Your task to perform on an android device: Find coffee shops on Maps Image 0: 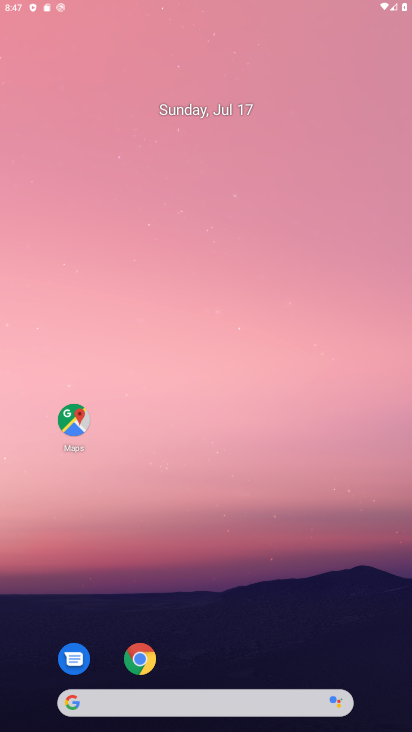
Step 0: drag from (214, 632) to (153, 181)
Your task to perform on an android device: Find coffee shops on Maps Image 1: 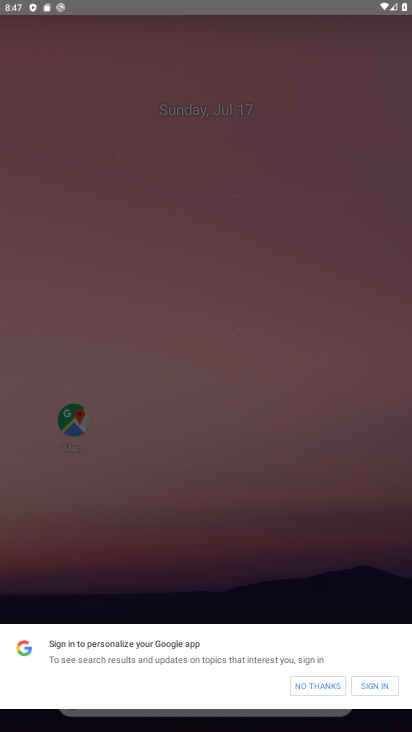
Step 1: press home button
Your task to perform on an android device: Find coffee shops on Maps Image 2: 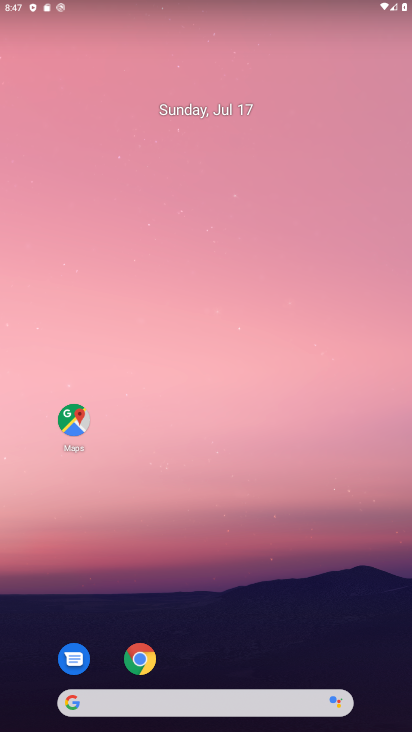
Step 2: click (66, 421)
Your task to perform on an android device: Find coffee shops on Maps Image 3: 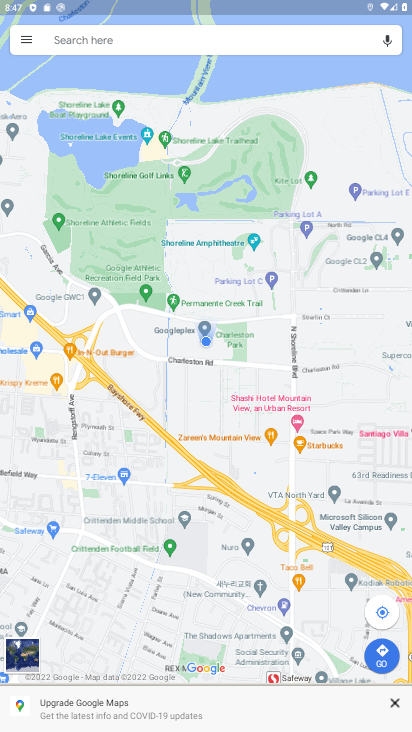
Step 3: click (115, 40)
Your task to perform on an android device: Find coffee shops on Maps Image 4: 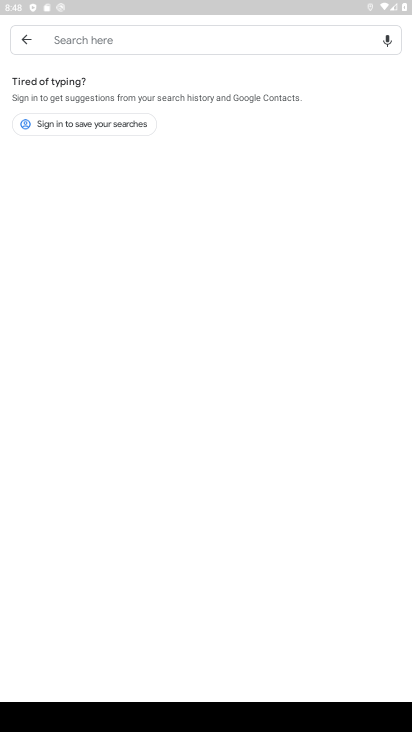
Step 4: type "coffee shops"
Your task to perform on an android device: Find coffee shops on Maps Image 5: 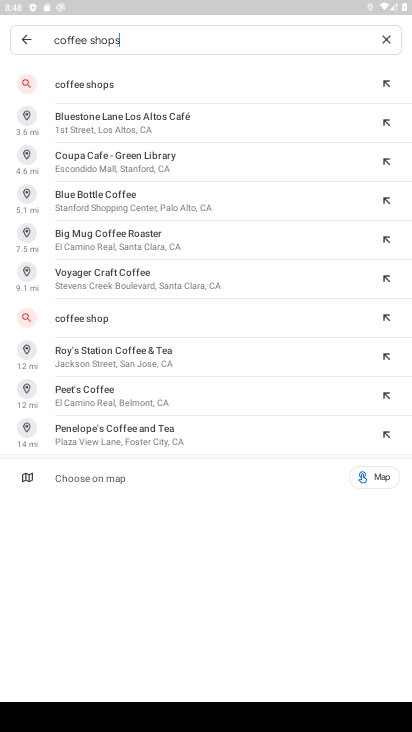
Step 5: click (68, 83)
Your task to perform on an android device: Find coffee shops on Maps Image 6: 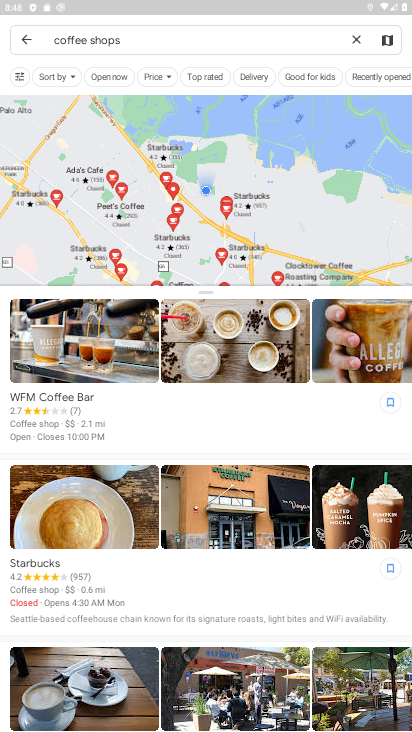
Step 6: task complete